Your task to perform on an android device: What's the weather going to be this weekend? Image 0: 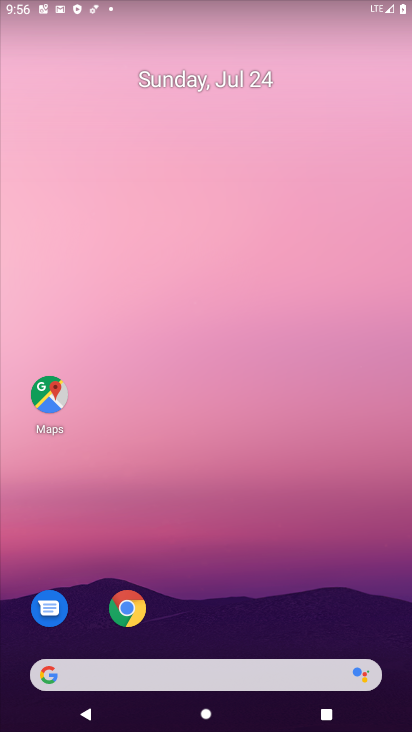
Step 0: press home button
Your task to perform on an android device: What's the weather going to be this weekend? Image 1: 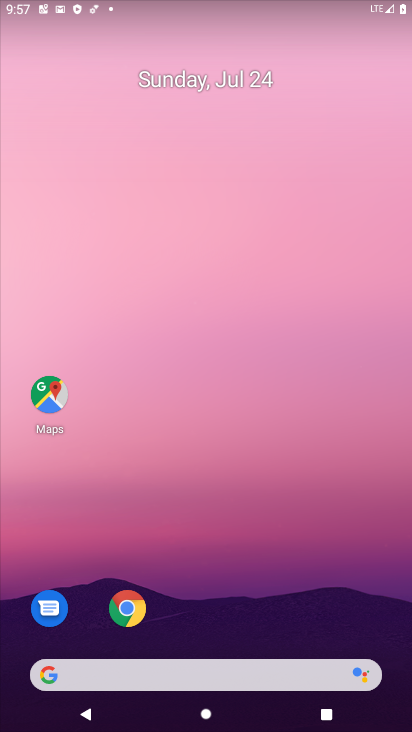
Step 1: drag from (17, 308) to (403, 293)
Your task to perform on an android device: What's the weather going to be this weekend? Image 2: 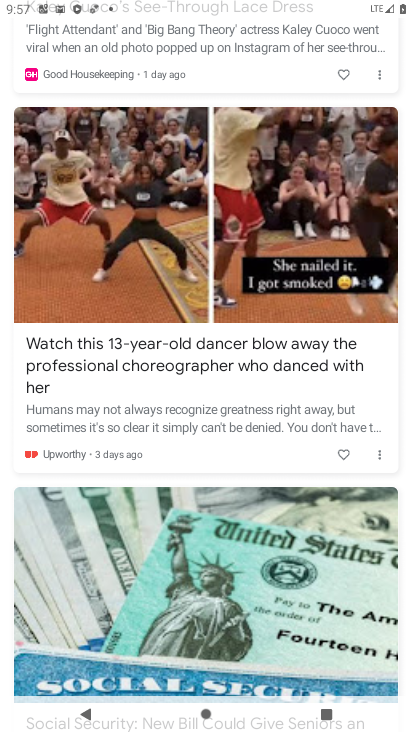
Step 2: drag from (205, 88) to (236, 638)
Your task to perform on an android device: What's the weather going to be this weekend? Image 3: 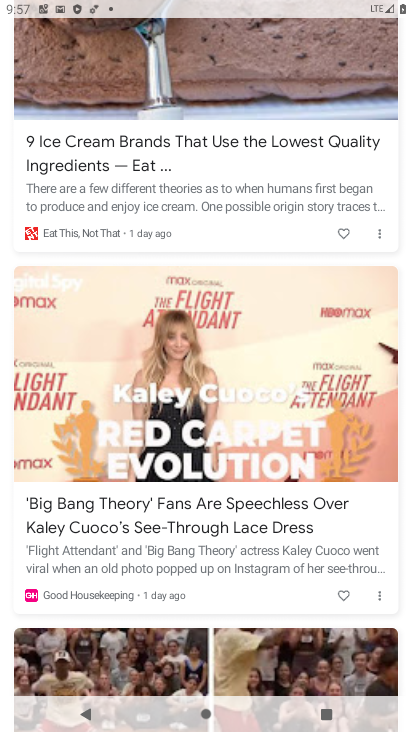
Step 3: drag from (235, 85) to (280, 608)
Your task to perform on an android device: What's the weather going to be this weekend? Image 4: 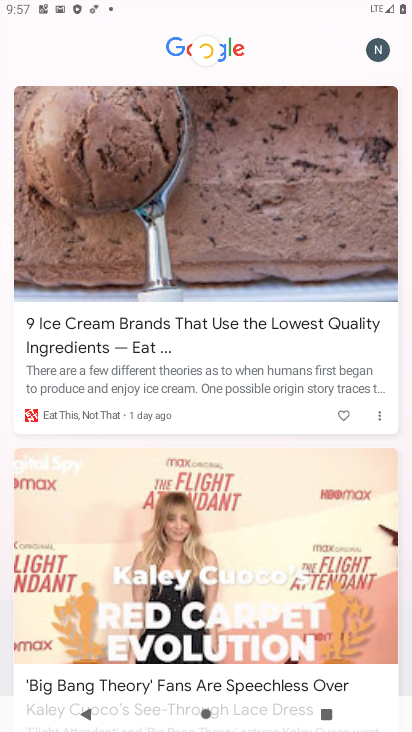
Step 4: press back button
Your task to perform on an android device: What's the weather going to be this weekend? Image 5: 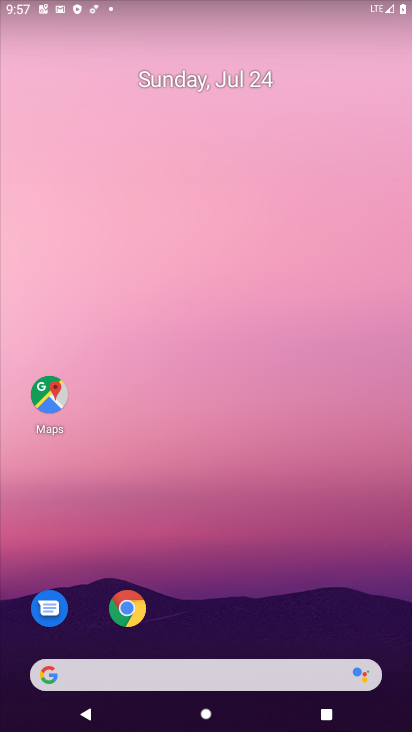
Step 5: click (174, 672)
Your task to perform on an android device: What's the weather going to be this weekend? Image 6: 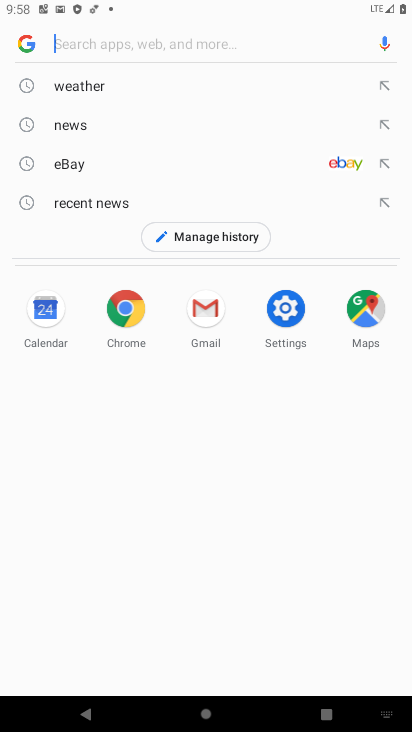
Step 6: click (113, 76)
Your task to perform on an android device: What's the weather going to be this weekend? Image 7: 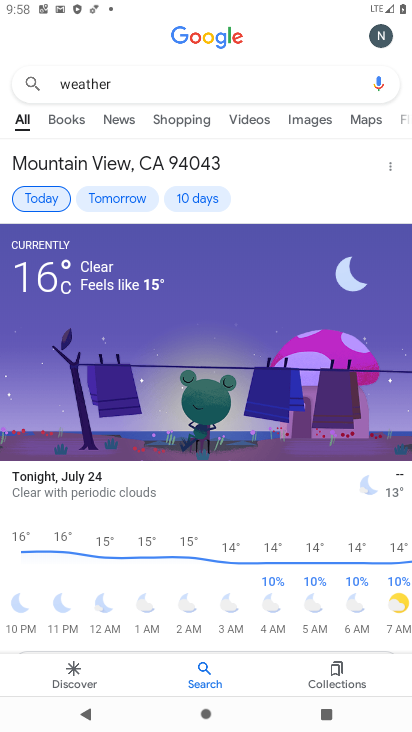
Step 7: task complete